Your task to perform on an android device: allow cookies in the chrome app Image 0: 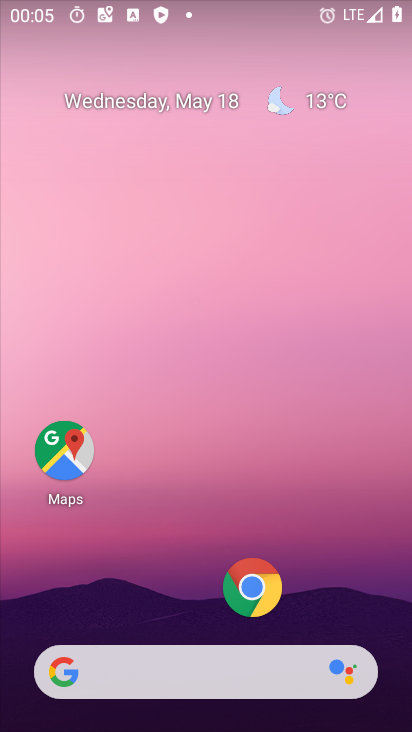
Step 0: task complete